Your task to perform on an android device: Go to Google maps Image 0: 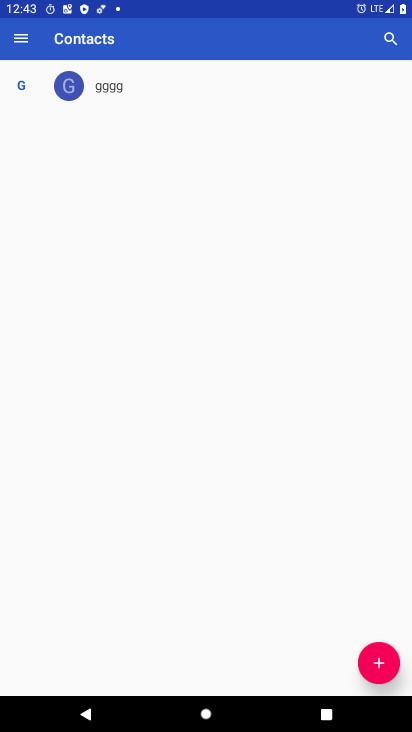
Step 0: press home button
Your task to perform on an android device: Go to Google maps Image 1: 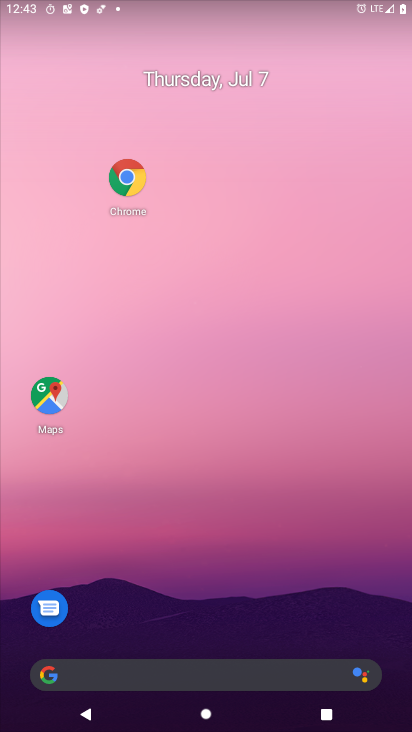
Step 1: drag from (181, 691) to (242, 189)
Your task to perform on an android device: Go to Google maps Image 2: 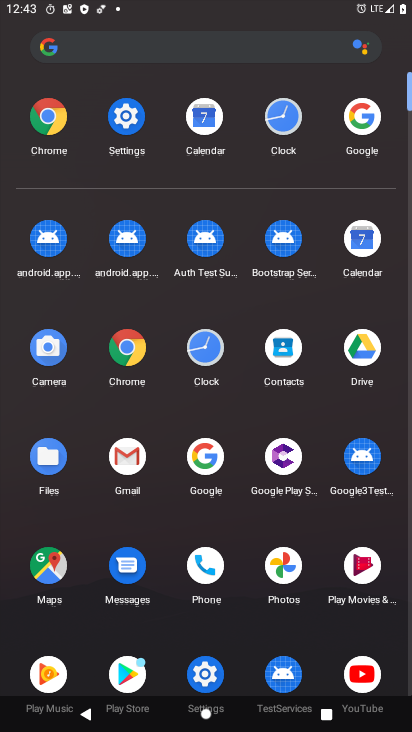
Step 2: click (48, 566)
Your task to perform on an android device: Go to Google maps Image 3: 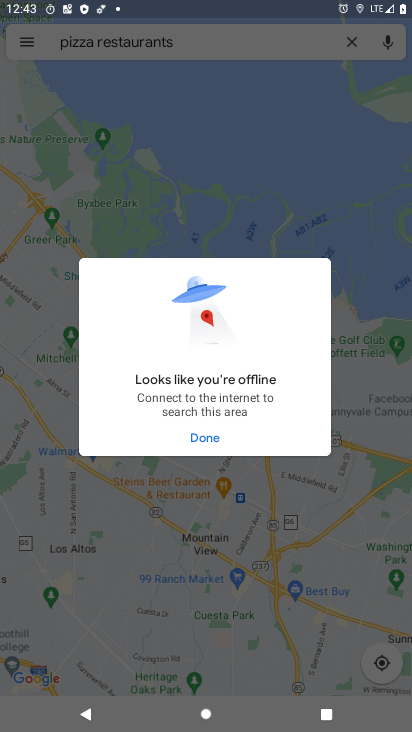
Step 3: click (202, 438)
Your task to perform on an android device: Go to Google maps Image 4: 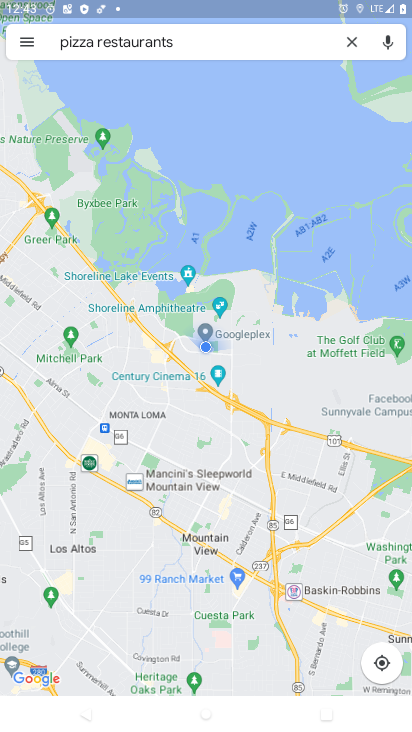
Step 4: task complete